Your task to perform on an android device: Open the map Image 0: 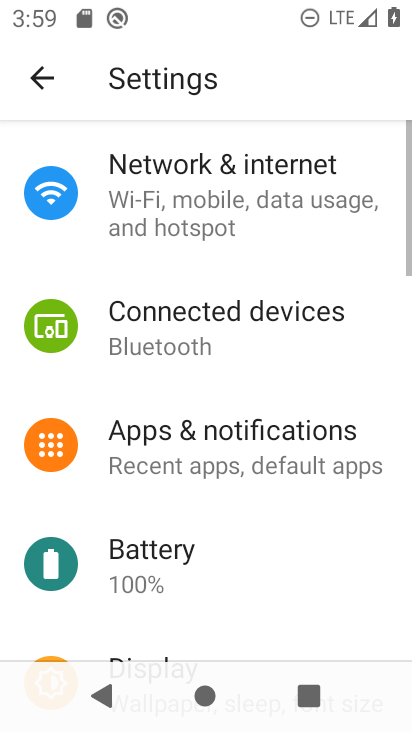
Step 0: press back button
Your task to perform on an android device: Open the map Image 1: 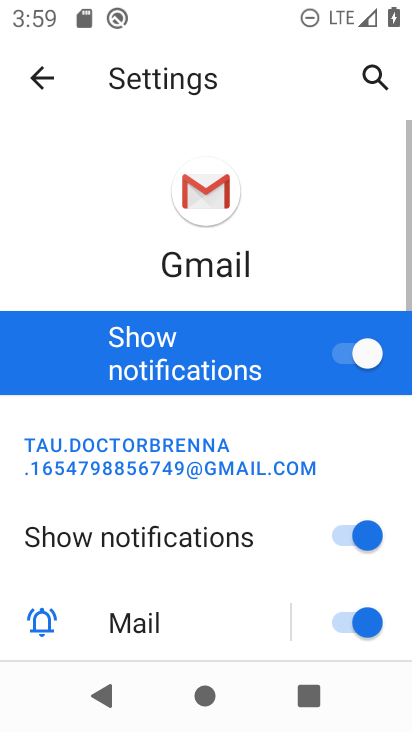
Step 1: press back button
Your task to perform on an android device: Open the map Image 2: 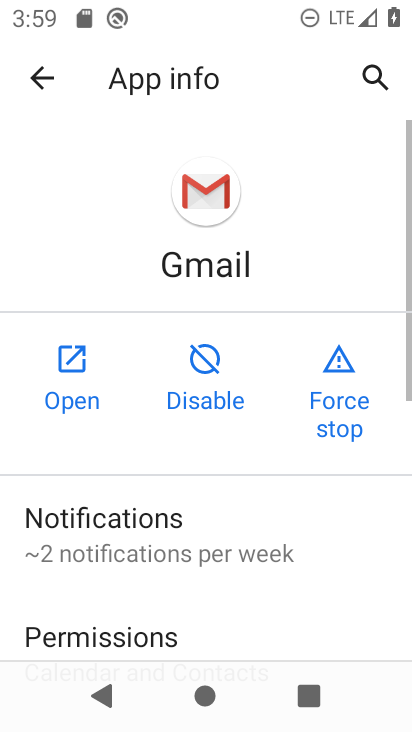
Step 2: press back button
Your task to perform on an android device: Open the map Image 3: 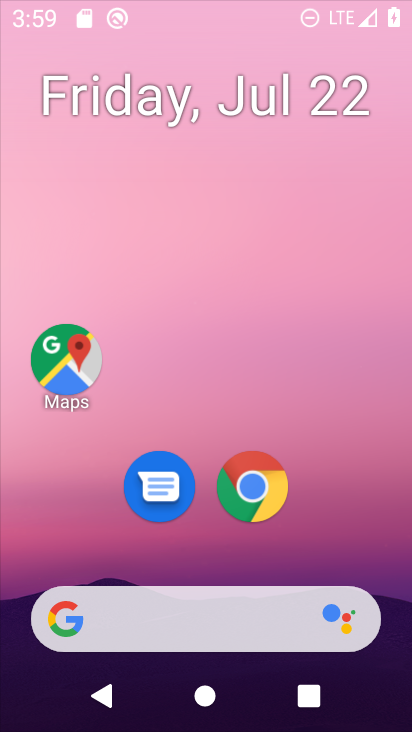
Step 3: press back button
Your task to perform on an android device: Open the map Image 4: 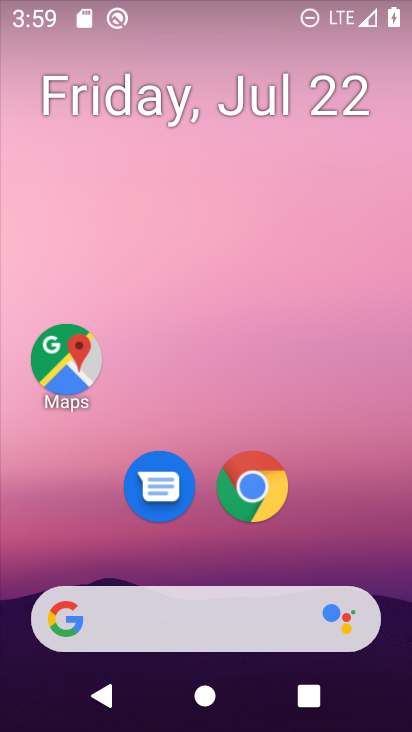
Step 4: click (51, 354)
Your task to perform on an android device: Open the map Image 5: 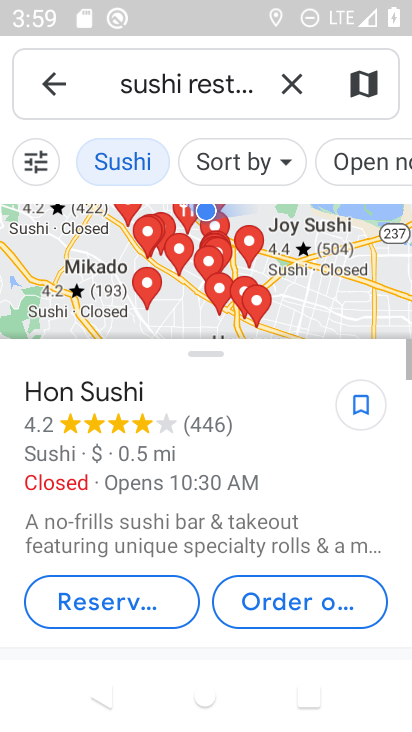
Step 5: task complete